Your task to perform on an android device: Show me recent news Image 0: 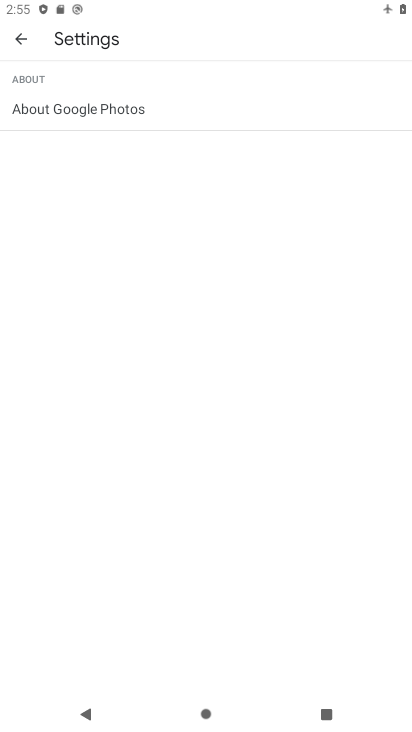
Step 0: press home button
Your task to perform on an android device: Show me recent news Image 1: 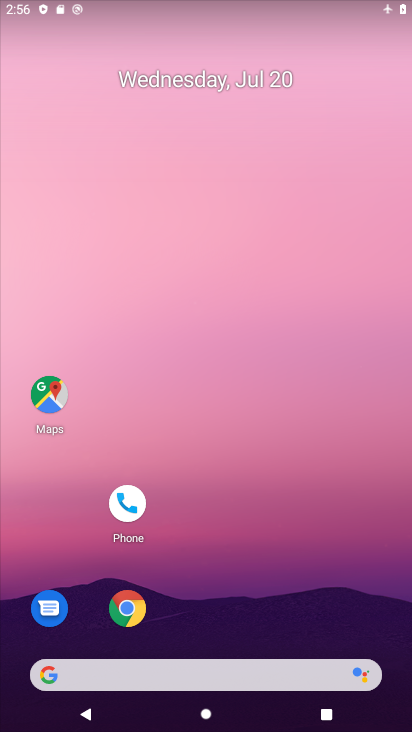
Step 1: drag from (264, 655) to (328, 112)
Your task to perform on an android device: Show me recent news Image 2: 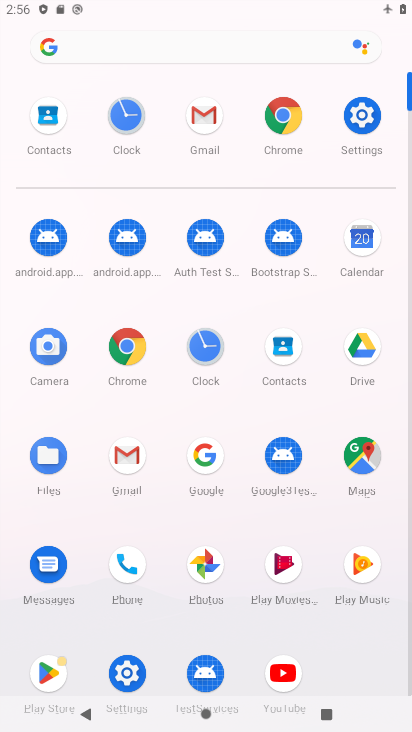
Step 2: click (279, 110)
Your task to perform on an android device: Show me recent news Image 3: 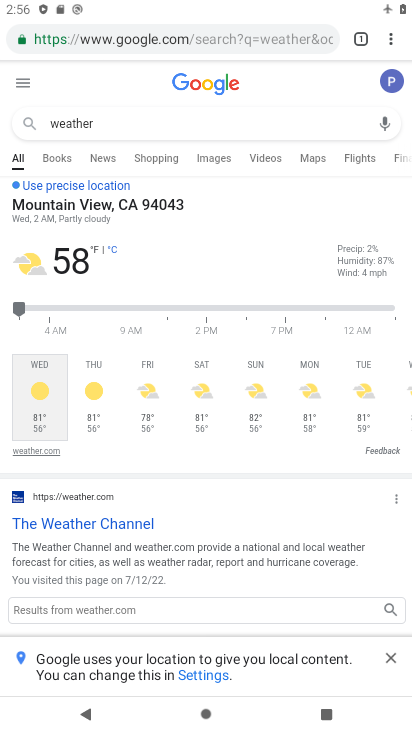
Step 3: click (266, 47)
Your task to perform on an android device: Show me recent news Image 4: 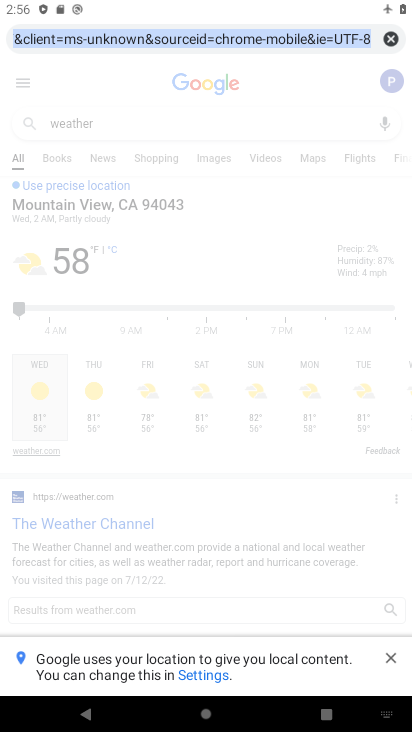
Step 4: type "news"
Your task to perform on an android device: Show me recent news Image 5: 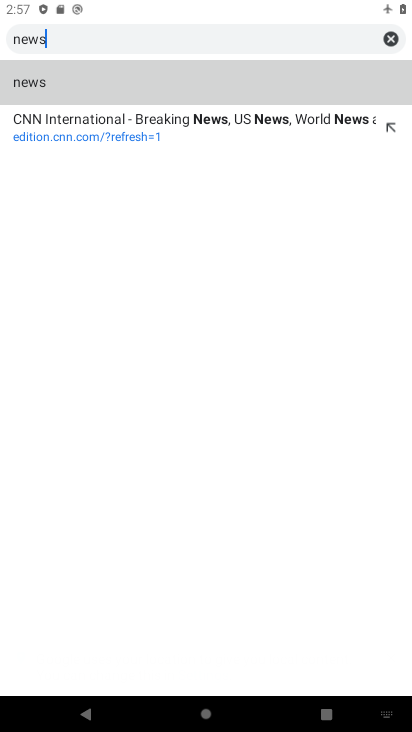
Step 5: click (34, 82)
Your task to perform on an android device: Show me recent news Image 6: 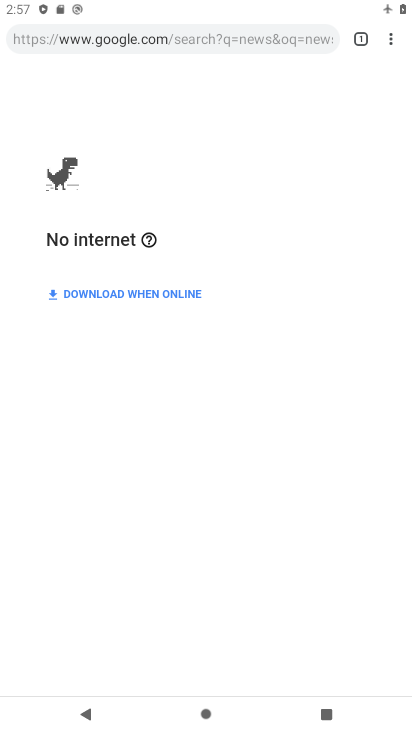
Step 6: task complete